Your task to perform on an android device: turn on data saver in the chrome app Image 0: 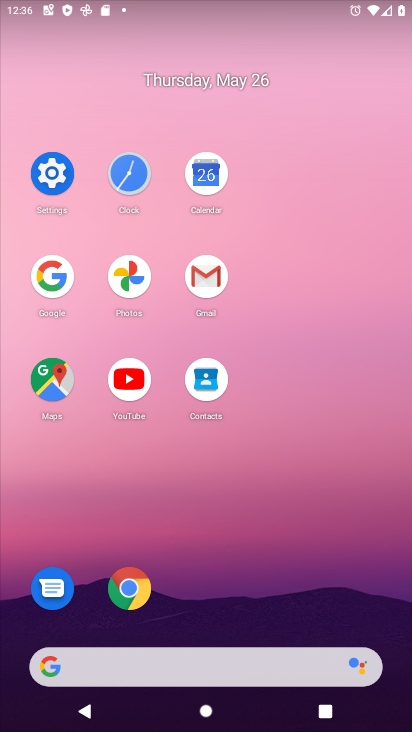
Step 0: click (145, 601)
Your task to perform on an android device: turn on data saver in the chrome app Image 1: 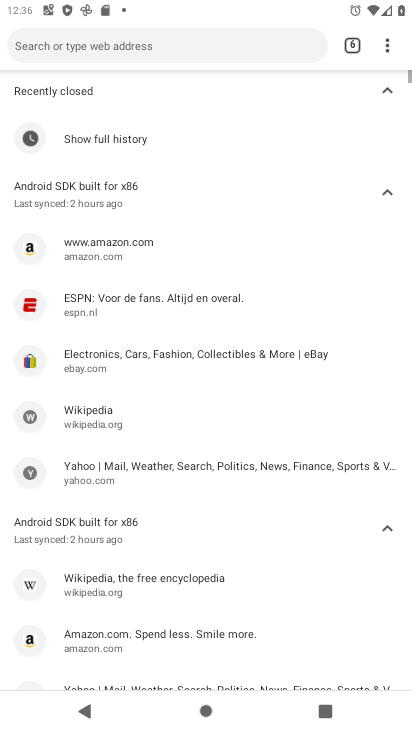
Step 1: click (385, 50)
Your task to perform on an android device: turn on data saver in the chrome app Image 2: 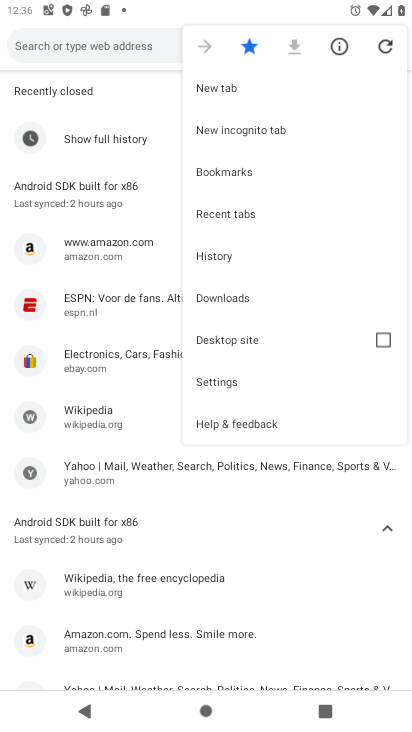
Step 2: click (237, 374)
Your task to perform on an android device: turn on data saver in the chrome app Image 3: 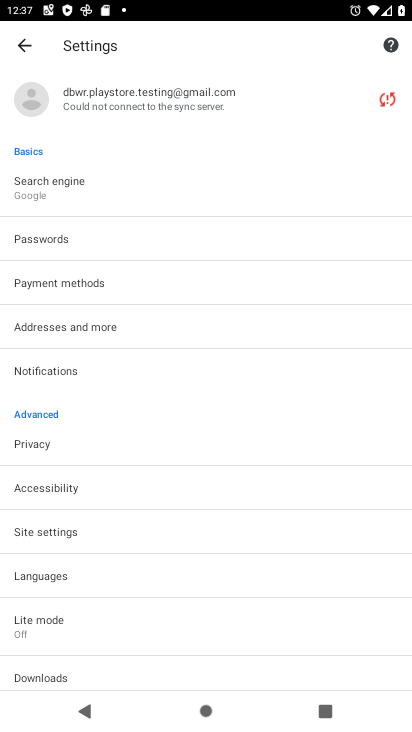
Step 3: click (122, 623)
Your task to perform on an android device: turn on data saver in the chrome app Image 4: 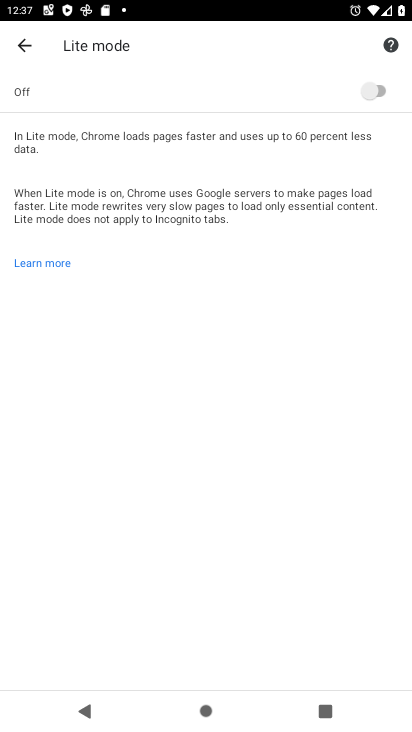
Step 4: click (369, 89)
Your task to perform on an android device: turn on data saver in the chrome app Image 5: 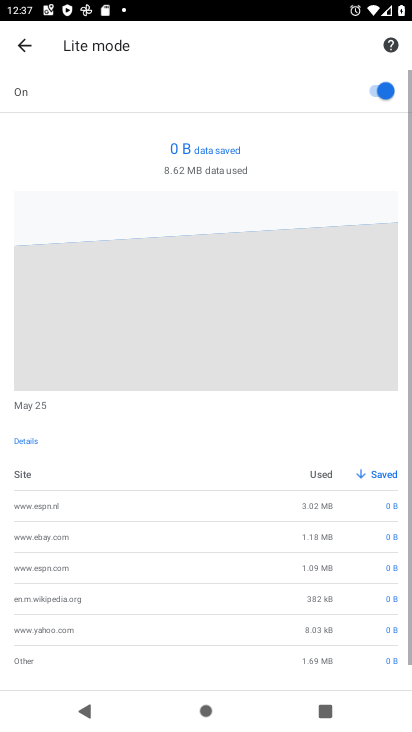
Step 5: task complete